Your task to perform on an android device: Open Wikipedia Image 0: 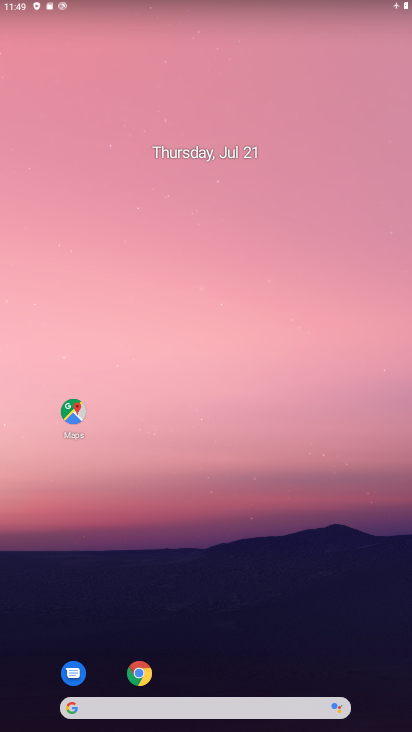
Step 0: drag from (225, 486) to (62, 547)
Your task to perform on an android device: Open Wikipedia Image 1: 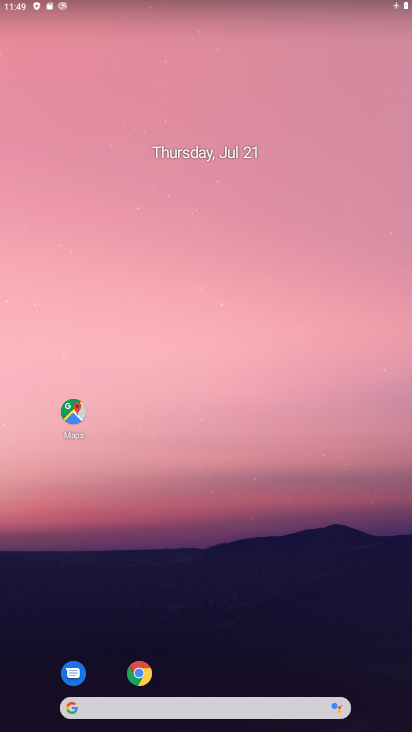
Step 1: drag from (203, 680) to (277, 91)
Your task to perform on an android device: Open Wikipedia Image 2: 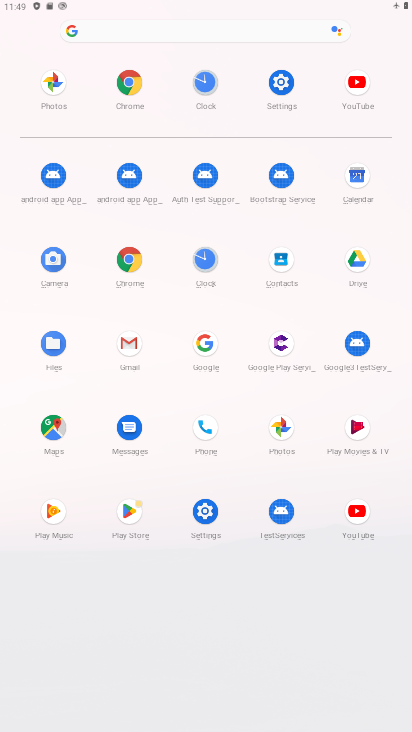
Step 2: click (126, 24)
Your task to perform on an android device: Open Wikipedia Image 3: 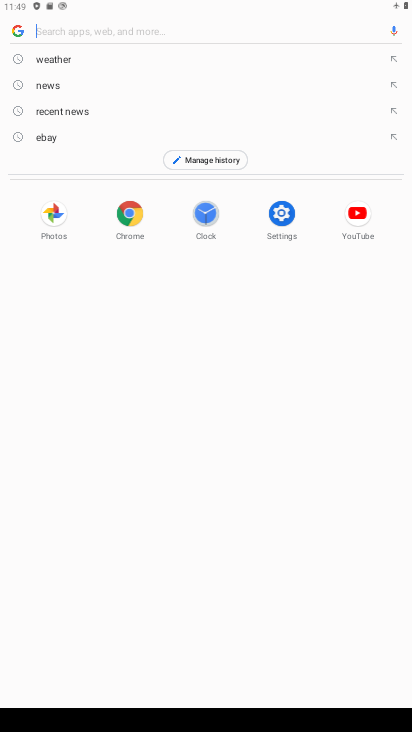
Step 3: type "Wikipedia"
Your task to perform on an android device: Open Wikipedia Image 4: 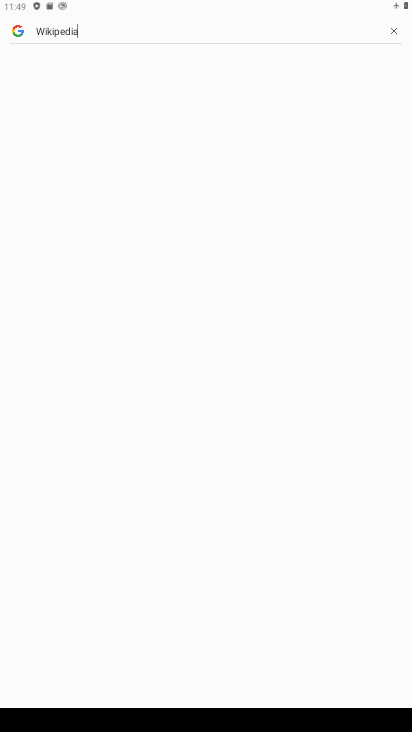
Step 4: click (76, 53)
Your task to perform on an android device: Open Wikipedia Image 5: 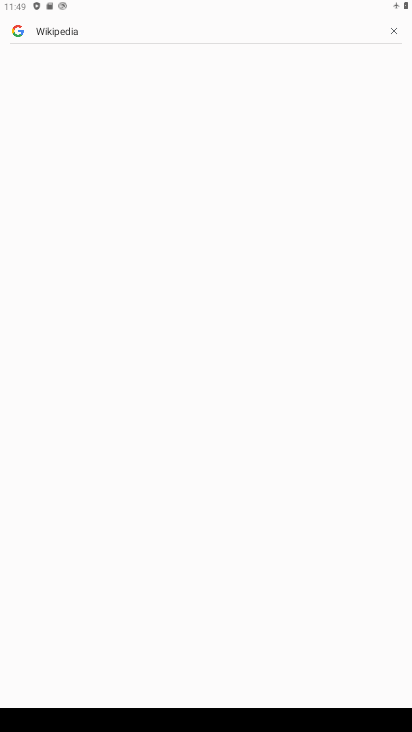
Step 5: task complete